Your task to perform on an android device: toggle wifi Image 0: 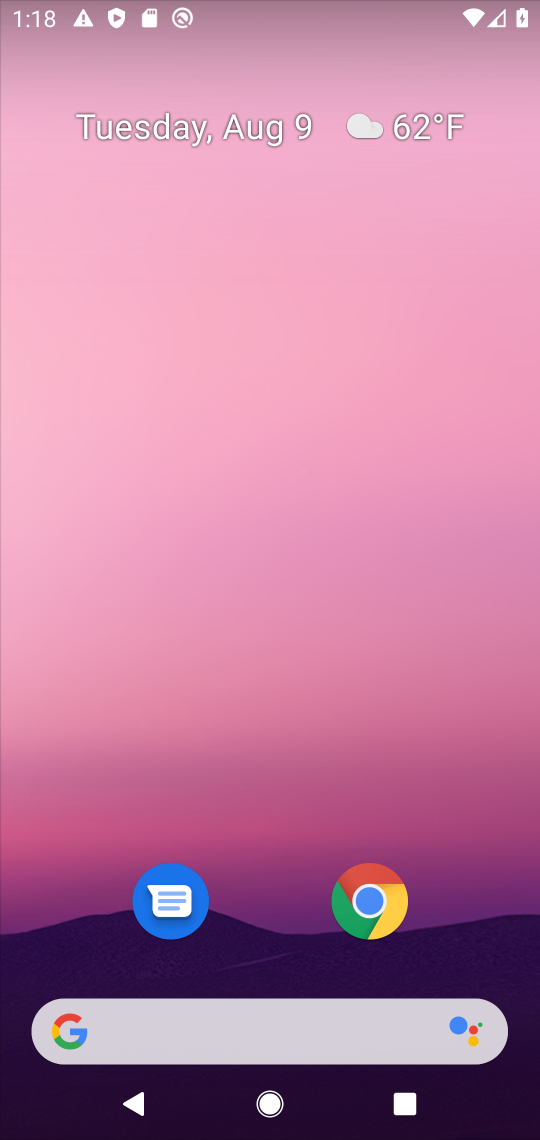
Step 0: drag from (510, 967) to (458, 201)
Your task to perform on an android device: toggle wifi Image 1: 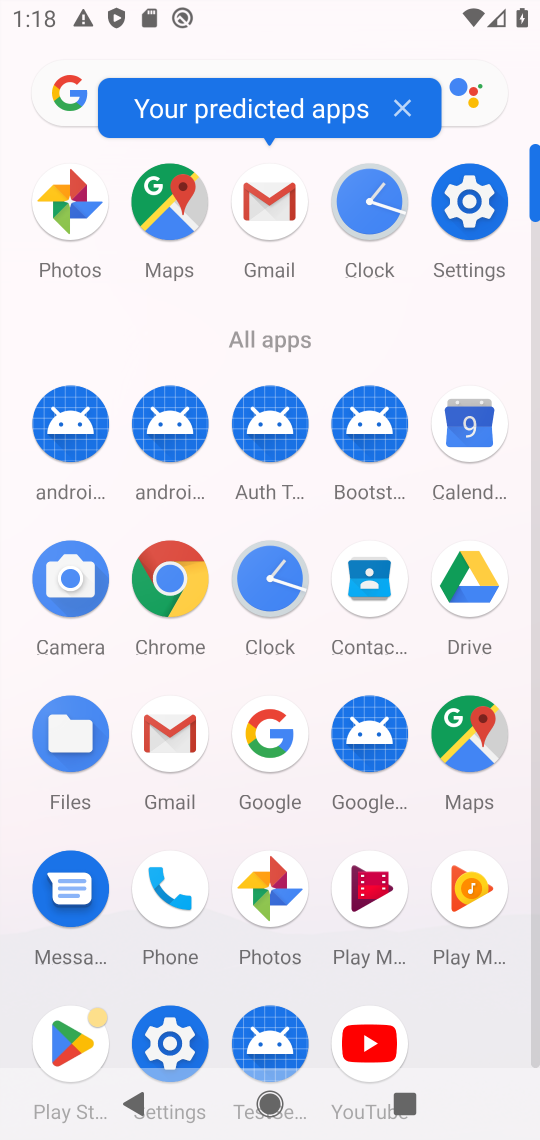
Step 1: click (173, 1042)
Your task to perform on an android device: toggle wifi Image 2: 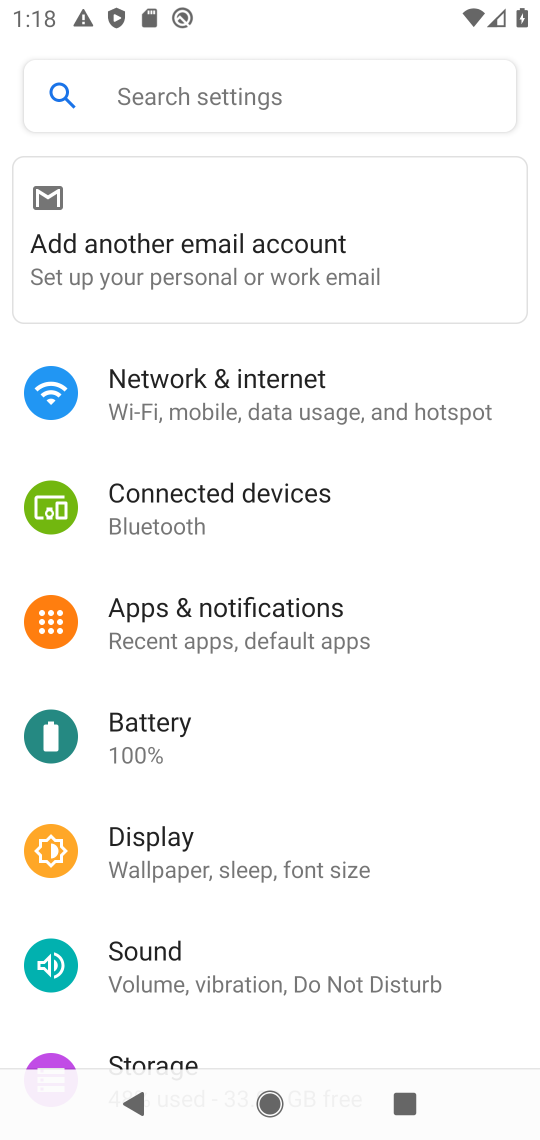
Step 2: click (225, 402)
Your task to perform on an android device: toggle wifi Image 3: 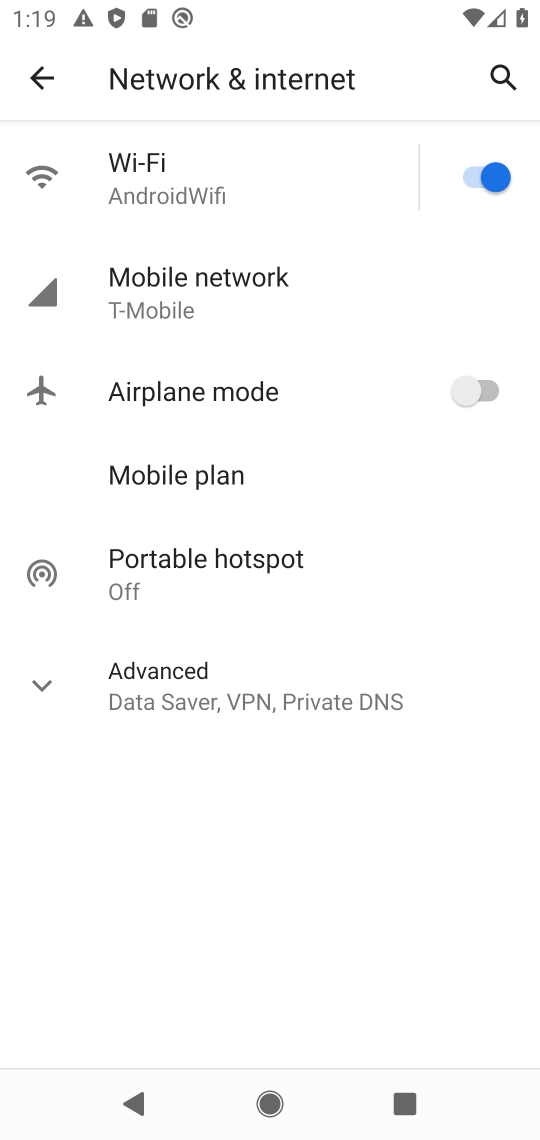
Step 3: click (464, 168)
Your task to perform on an android device: toggle wifi Image 4: 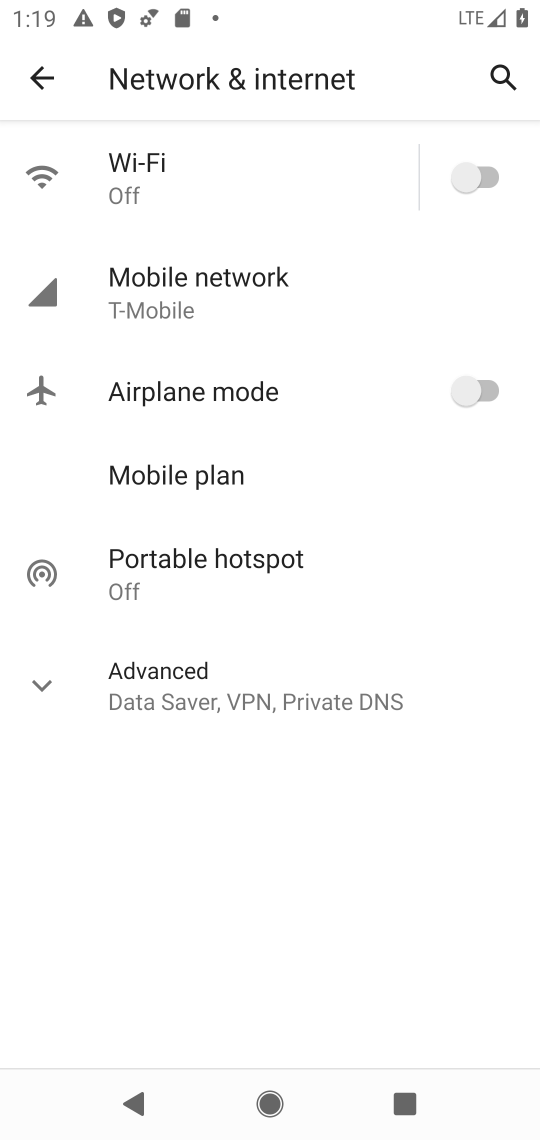
Step 4: task complete